Your task to perform on an android device: turn off location history Image 0: 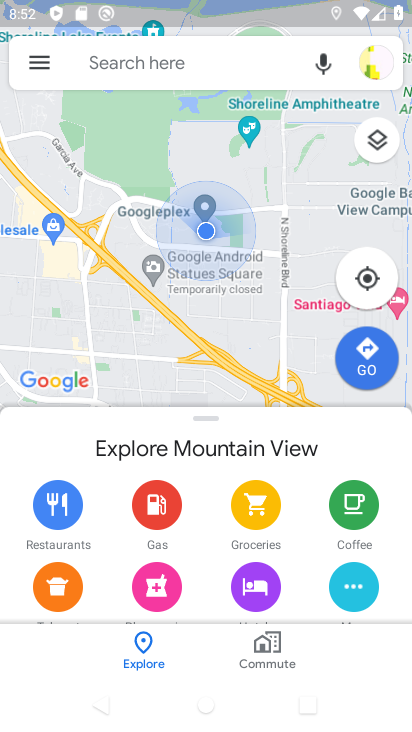
Step 0: press home button
Your task to perform on an android device: turn off location history Image 1: 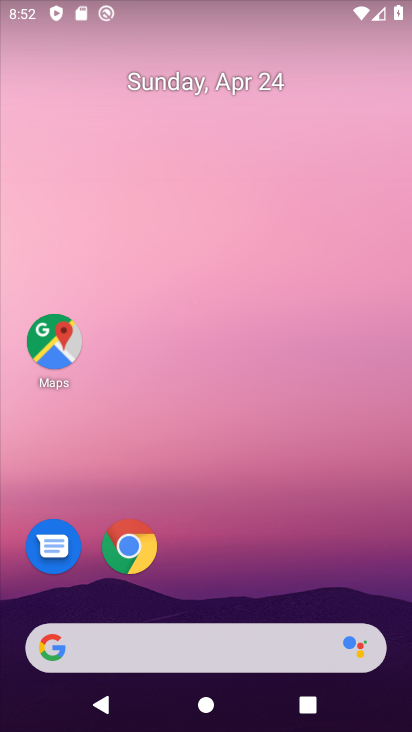
Step 1: drag from (224, 538) to (329, 20)
Your task to perform on an android device: turn off location history Image 2: 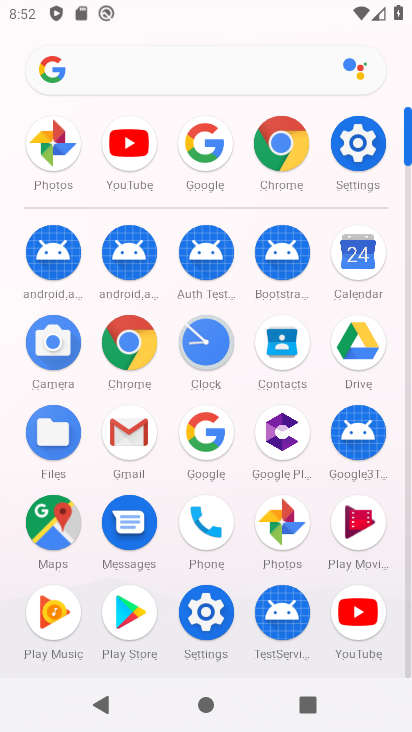
Step 2: click (188, 612)
Your task to perform on an android device: turn off location history Image 3: 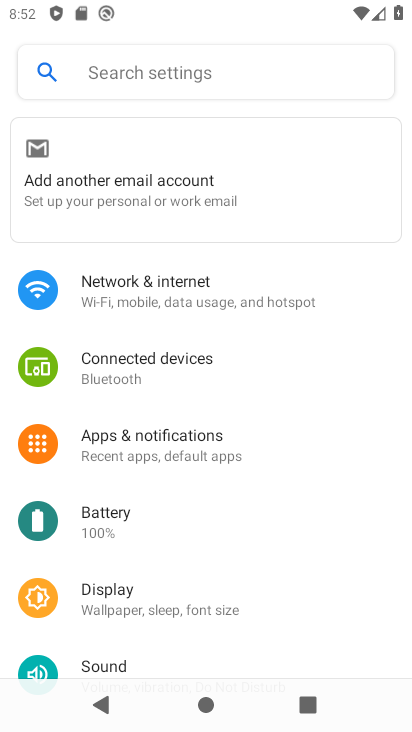
Step 3: drag from (188, 578) to (307, 57)
Your task to perform on an android device: turn off location history Image 4: 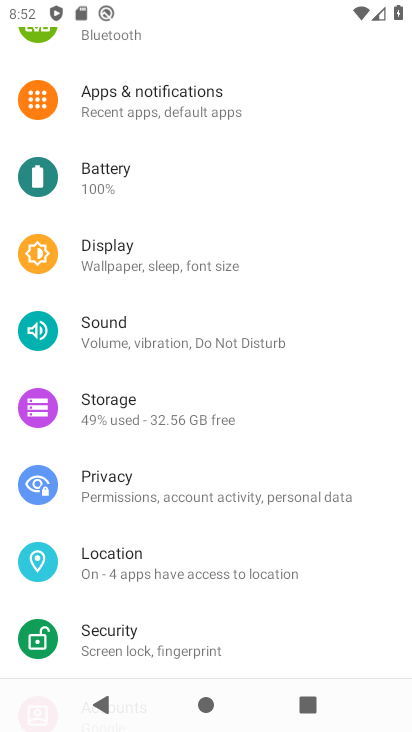
Step 4: click (155, 573)
Your task to perform on an android device: turn off location history Image 5: 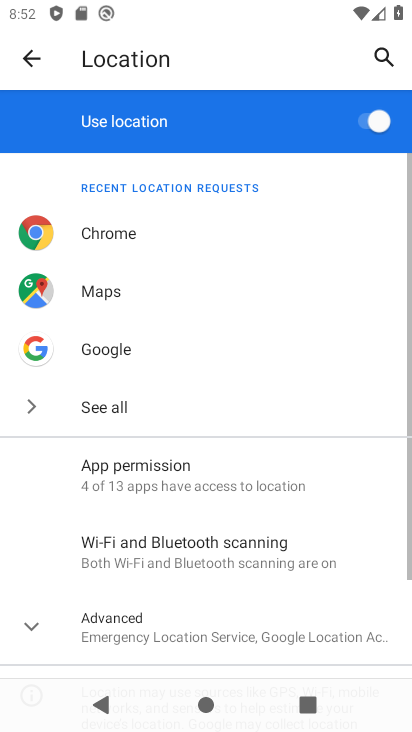
Step 5: drag from (228, 578) to (309, 155)
Your task to perform on an android device: turn off location history Image 6: 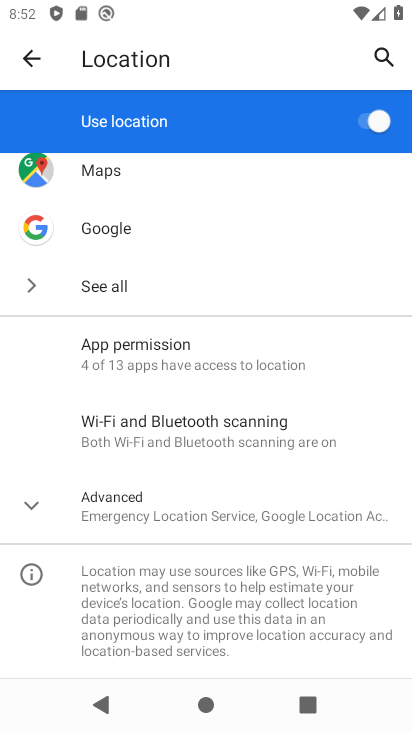
Step 6: click (210, 502)
Your task to perform on an android device: turn off location history Image 7: 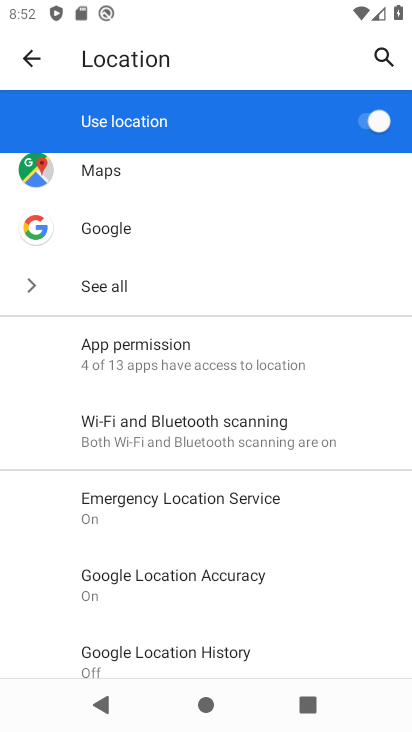
Step 7: task complete